Your task to perform on an android device: delete browsing data in the chrome app Image 0: 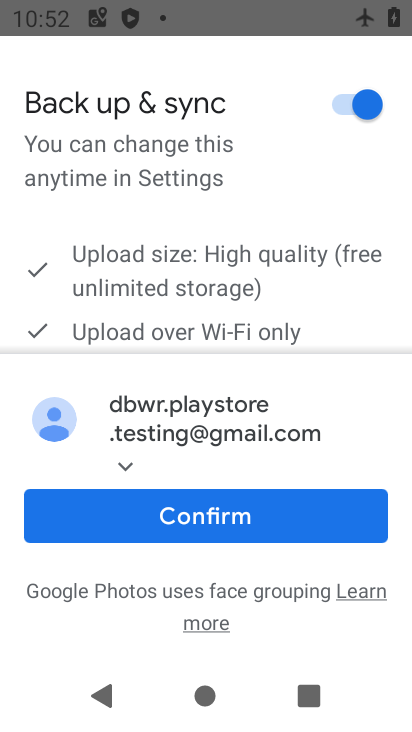
Step 0: press home button
Your task to perform on an android device: delete browsing data in the chrome app Image 1: 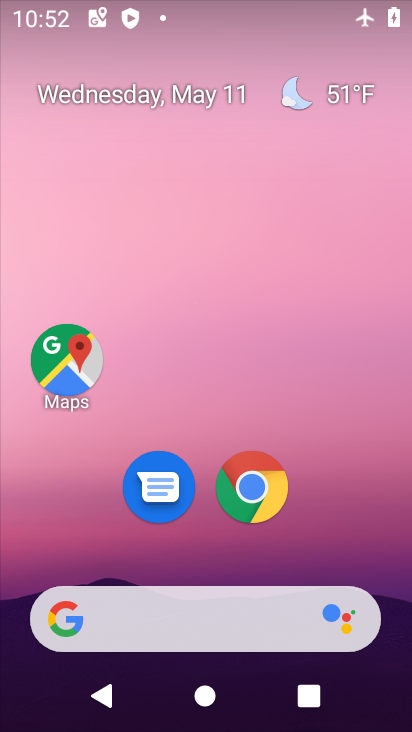
Step 1: click (270, 493)
Your task to perform on an android device: delete browsing data in the chrome app Image 2: 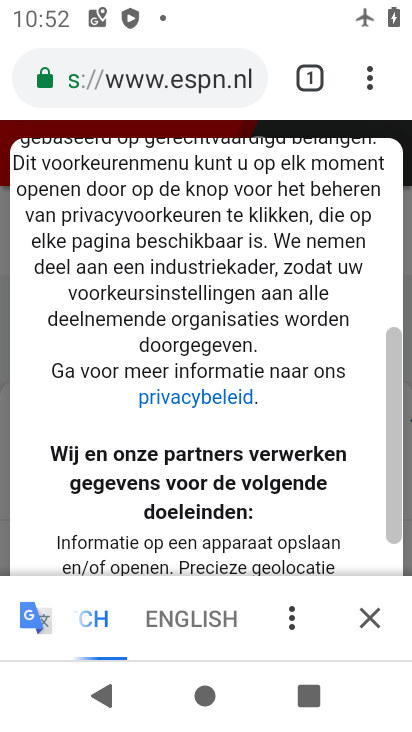
Step 2: click (372, 88)
Your task to perform on an android device: delete browsing data in the chrome app Image 3: 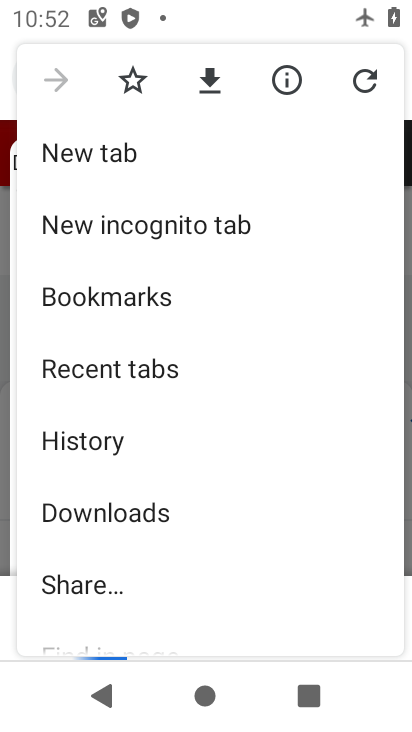
Step 3: click (83, 449)
Your task to perform on an android device: delete browsing data in the chrome app Image 4: 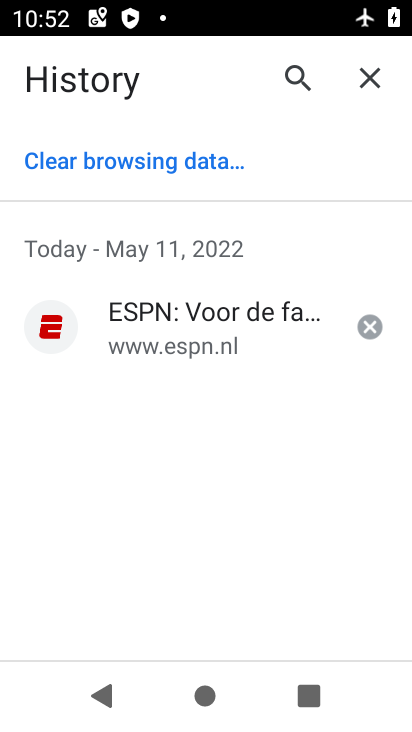
Step 4: click (212, 169)
Your task to perform on an android device: delete browsing data in the chrome app Image 5: 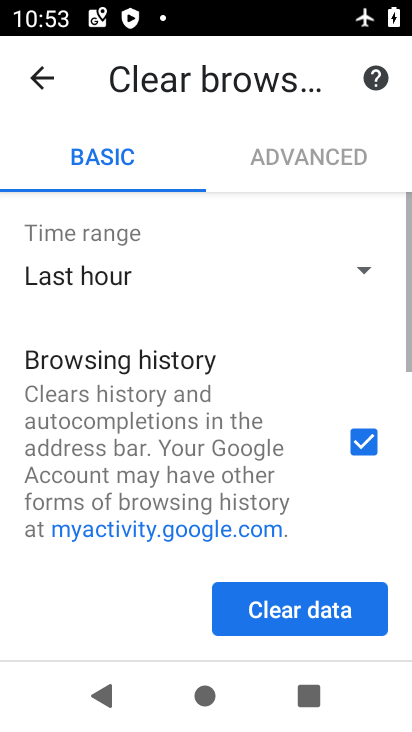
Step 5: click (347, 606)
Your task to perform on an android device: delete browsing data in the chrome app Image 6: 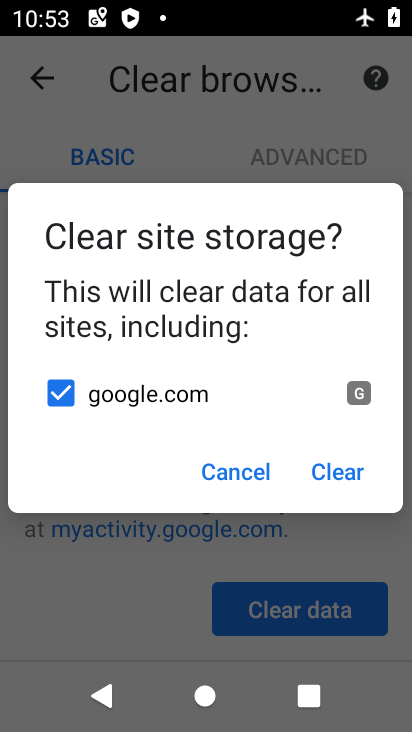
Step 6: click (342, 475)
Your task to perform on an android device: delete browsing data in the chrome app Image 7: 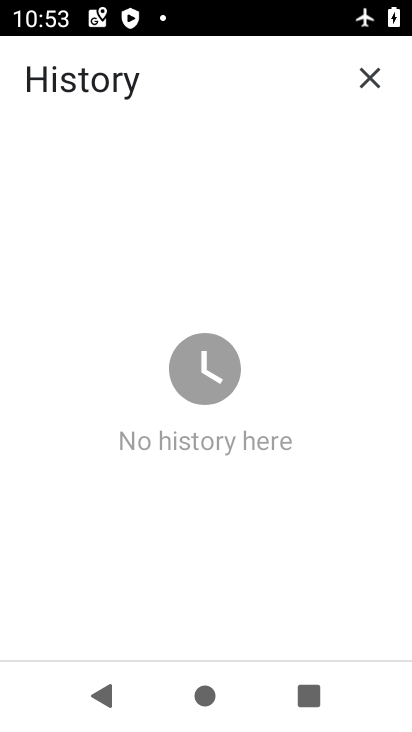
Step 7: task complete